Your task to perform on an android device: Go to Google Image 0: 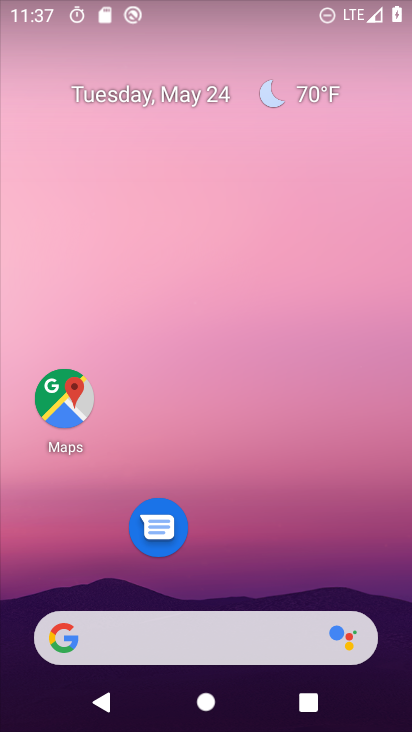
Step 0: drag from (262, 471) to (270, 43)
Your task to perform on an android device: Go to Google Image 1: 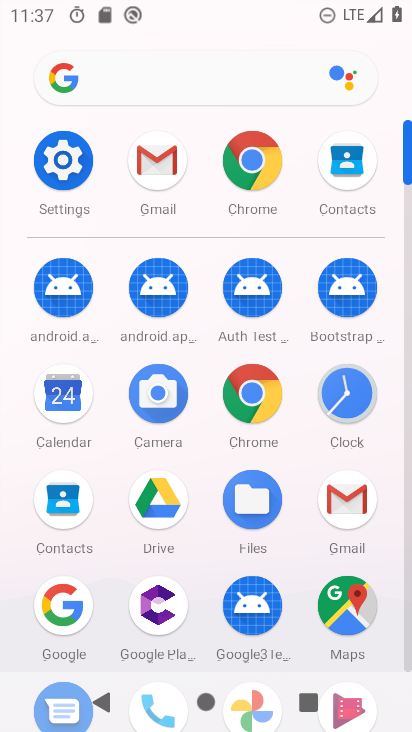
Step 1: click (70, 607)
Your task to perform on an android device: Go to Google Image 2: 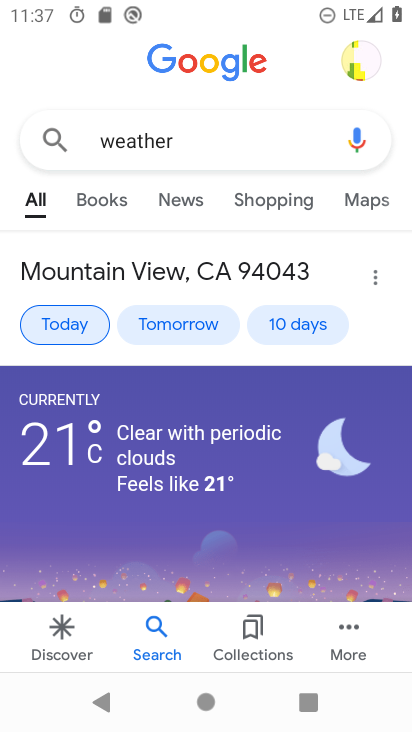
Step 2: task complete